Your task to perform on an android device: open a bookmark in the chrome app Image 0: 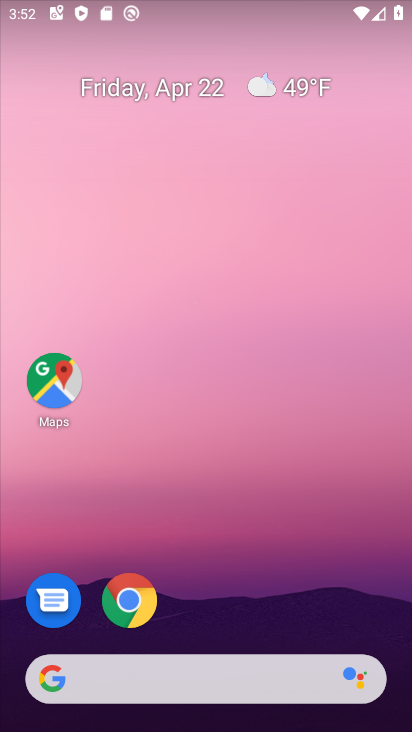
Step 0: drag from (195, 640) to (335, 64)
Your task to perform on an android device: open a bookmark in the chrome app Image 1: 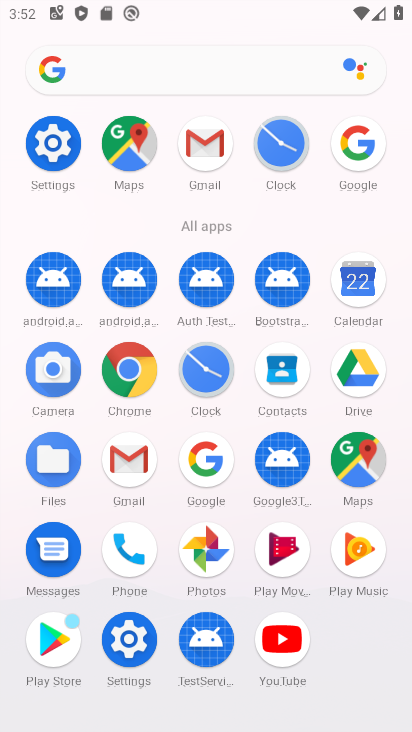
Step 1: click (137, 378)
Your task to perform on an android device: open a bookmark in the chrome app Image 2: 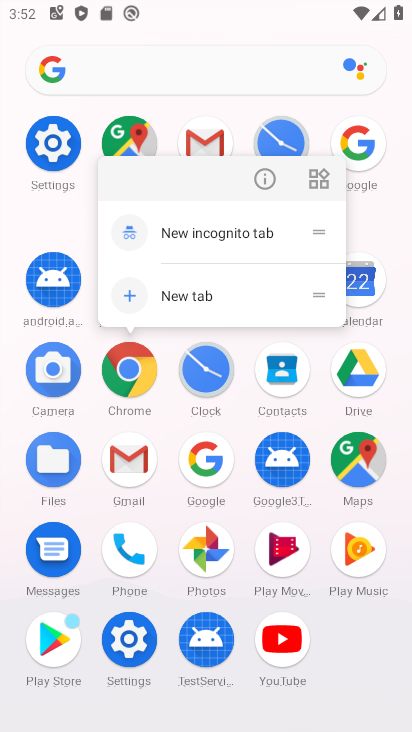
Step 2: click (137, 365)
Your task to perform on an android device: open a bookmark in the chrome app Image 3: 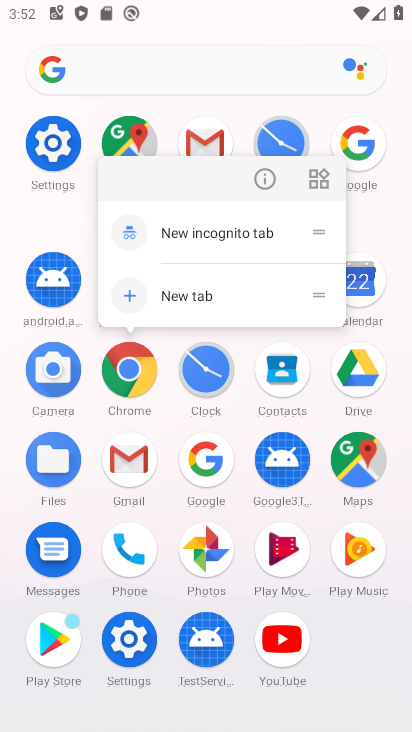
Step 3: click (128, 375)
Your task to perform on an android device: open a bookmark in the chrome app Image 4: 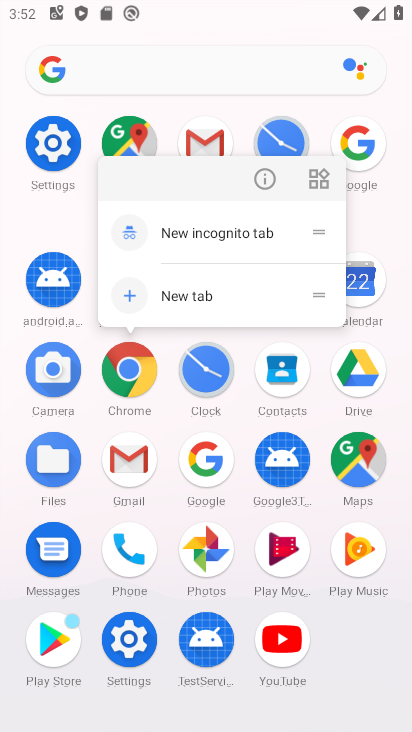
Step 4: click (119, 384)
Your task to perform on an android device: open a bookmark in the chrome app Image 5: 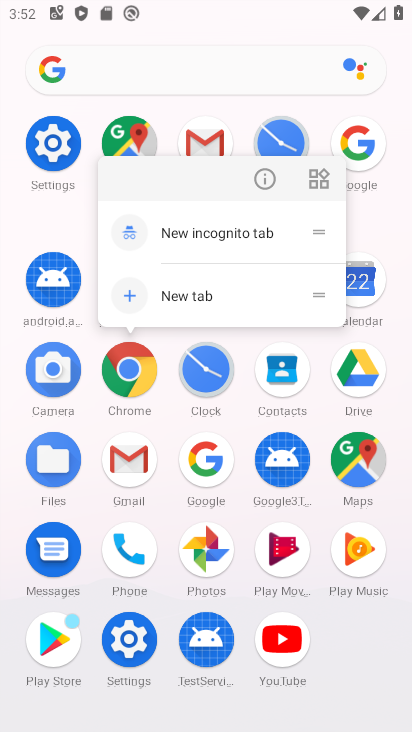
Step 5: click (133, 388)
Your task to perform on an android device: open a bookmark in the chrome app Image 6: 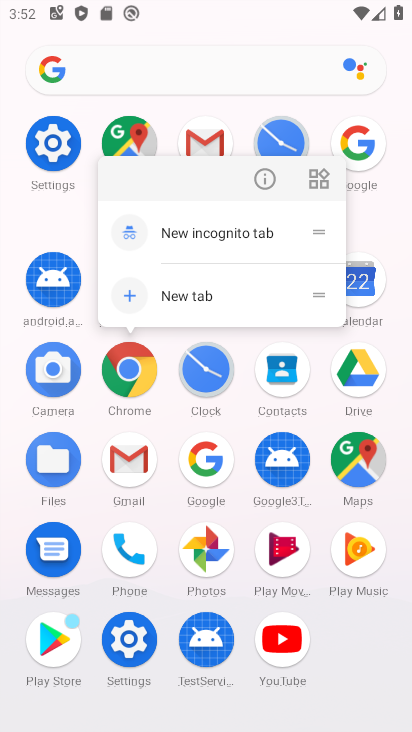
Step 6: click (136, 377)
Your task to perform on an android device: open a bookmark in the chrome app Image 7: 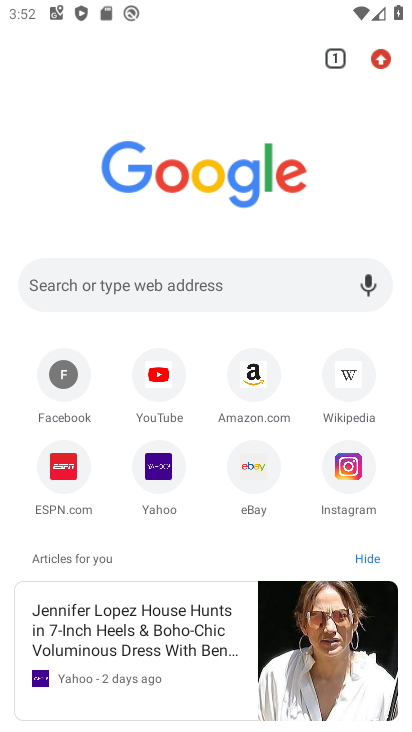
Step 7: task complete